Your task to perform on an android device: Go to internet settings Image 0: 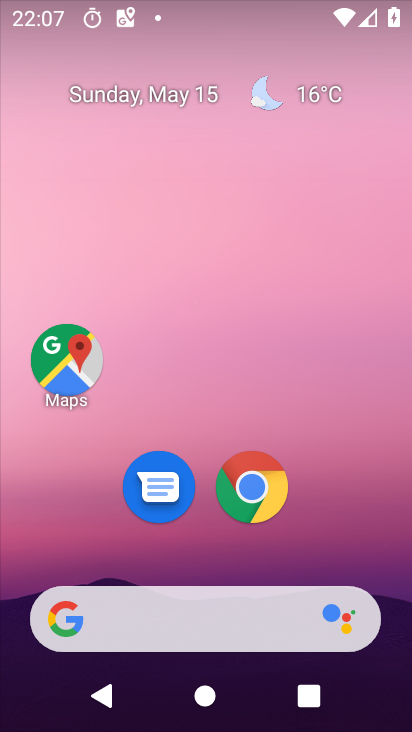
Step 0: click (373, 372)
Your task to perform on an android device: Go to internet settings Image 1: 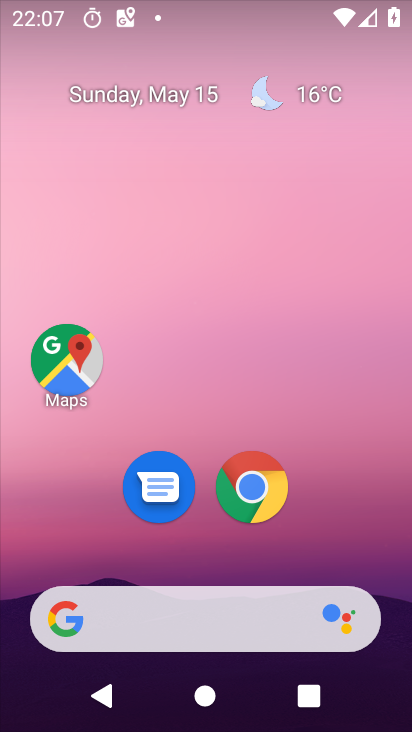
Step 1: drag from (400, 628) to (384, 229)
Your task to perform on an android device: Go to internet settings Image 2: 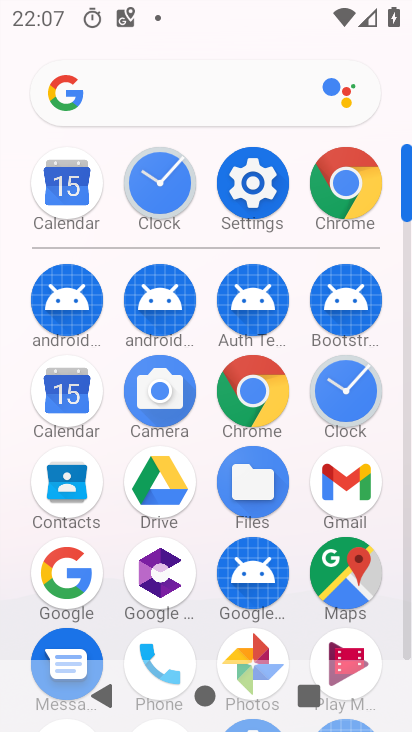
Step 2: click (263, 175)
Your task to perform on an android device: Go to internet settings Image 3: 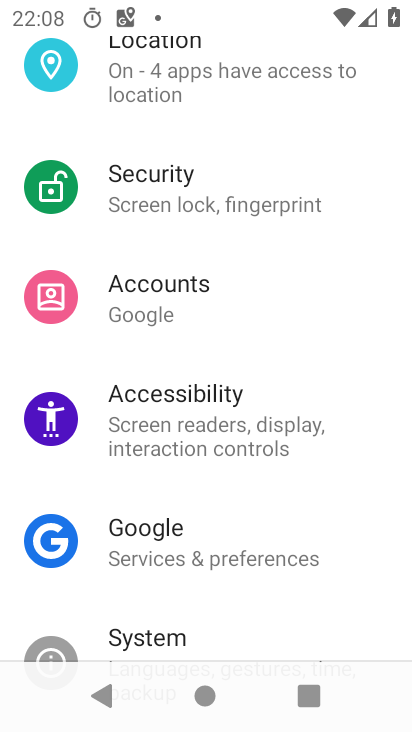
Step 3: drag from (378, 152) to (407, 482)
Your task to perform on an android device: Go to internet settings Image 4: 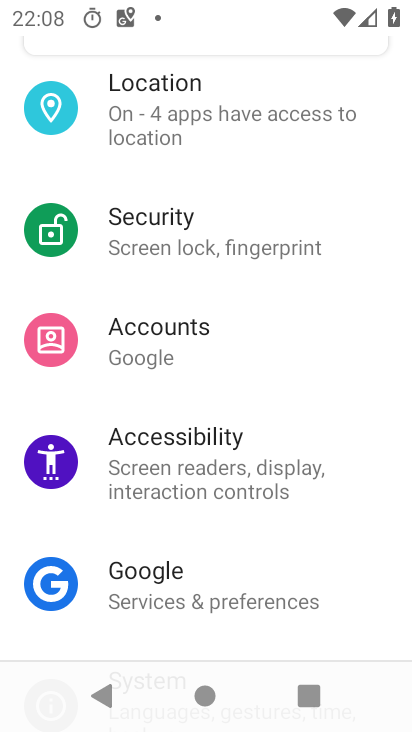
Step 4: drag from (383, 166) to (407, 427)
Your task to perform on an android device: Go to internet settings Image 5: 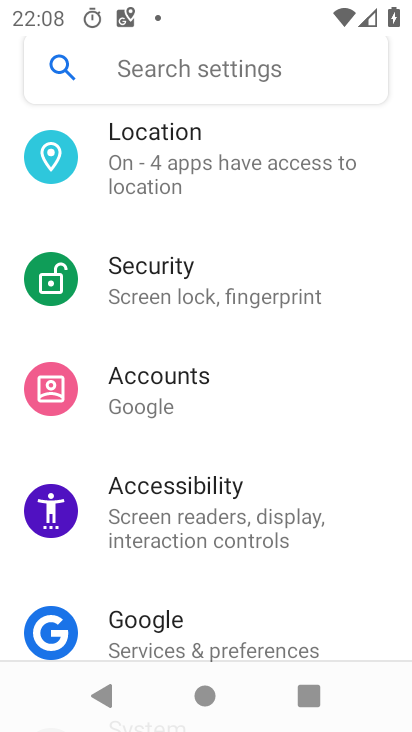
Step 5: drag from (376, 154) to (410, 250)
Your task to perform on an android device: Go to internet settings Image 6: 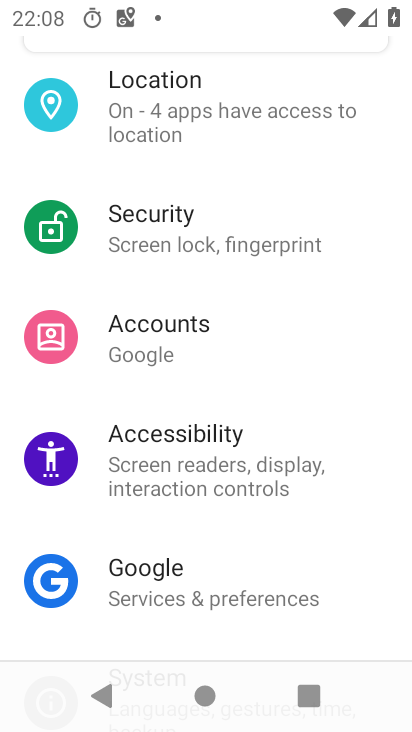
Step 6: drag from (386, 141) to (396, 481)
Your task to perform on an android device: Go to internet settings Image 7: 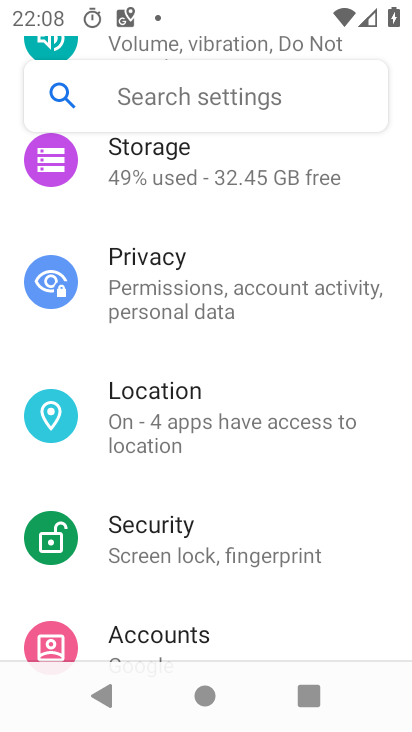
Step 7: drag from (382, 137) to (409, 423)
Your task to perform on an android device: Go to internet settings Image 8: 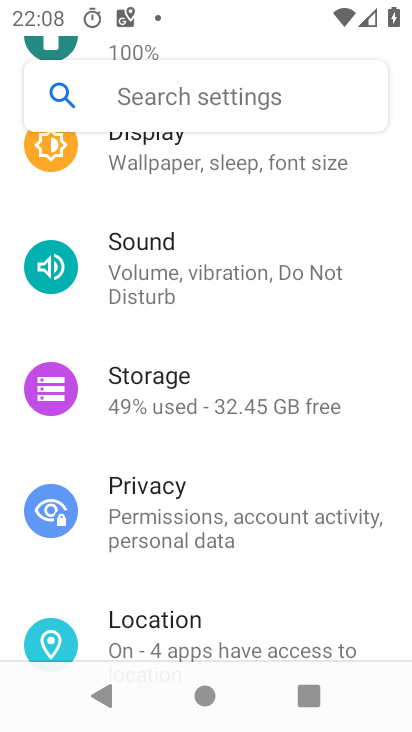
Step 8: drag from (379, 259) to (381, 518)
Your task to perform on an android device: Go to internet settings Image 9: 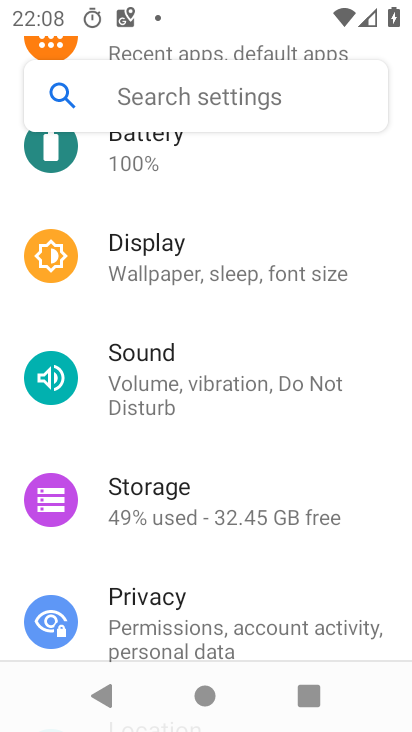
Step 9: drag from (384, 160) to (399, 558)
Your task to perform on an android device: Go to internet settings Image 10: 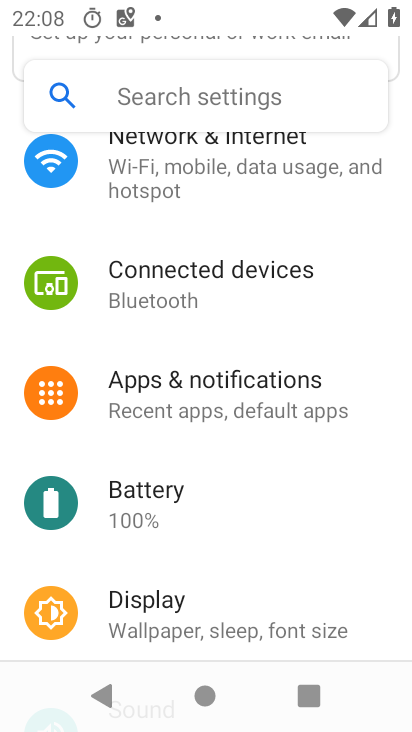
Step 10: drag from (386, 198) to (387, 460)
Your task to perform on an android device: Go to internet settings Image 11: 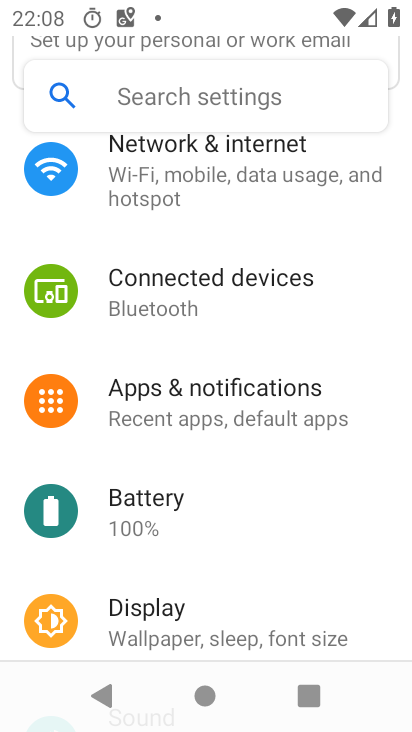
Step 11: click (203, 155)
Your task to perform on an android device: Go to internet settings Image 12: 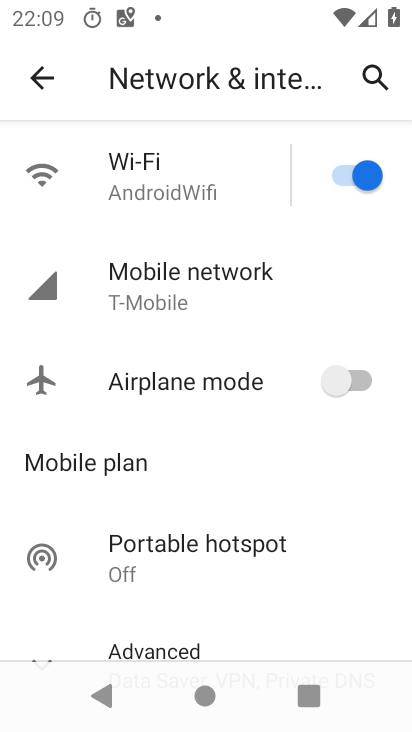
Step 12: click (178, 285)
Your task to perform on an android device: Go to internet settings Image 13: 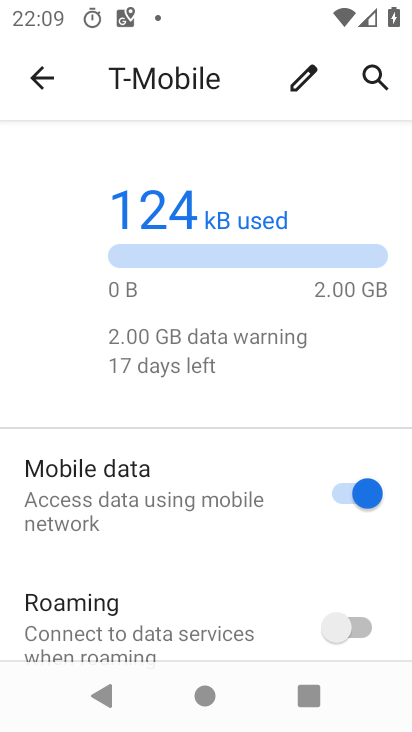
Step 13: drag from (203, 590) to (207, 330)
Your task to perform on an android device: Go to internet settings Image 14: 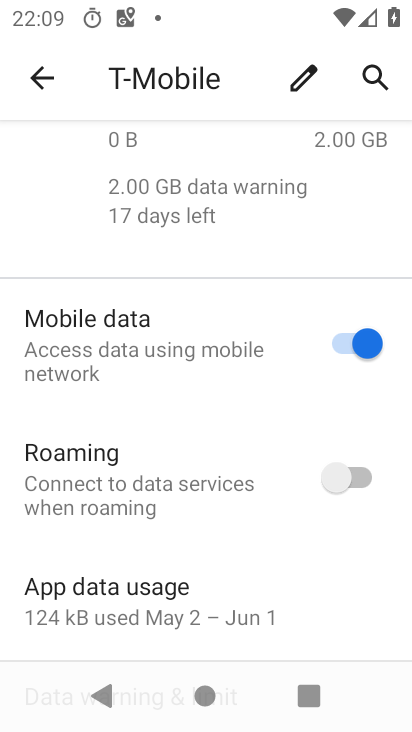
Step 14: drag from (190, 556) to (197, 373)
Your task to perform on an android device: Go to internet settings Image 15: 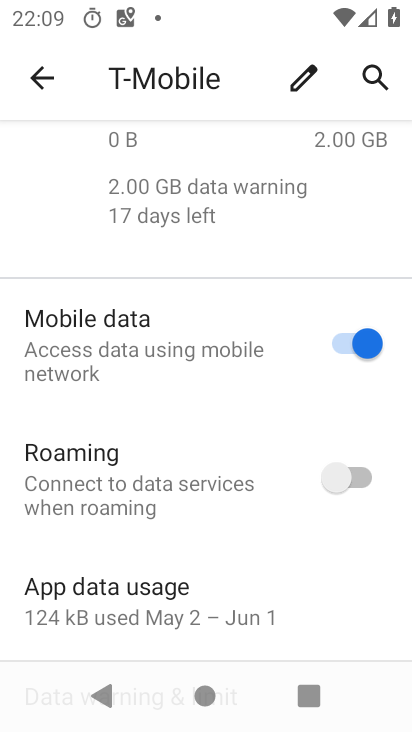
Step 15: click (37, 75)
Your task to perform on an android device: Go to internet settings Image 16: 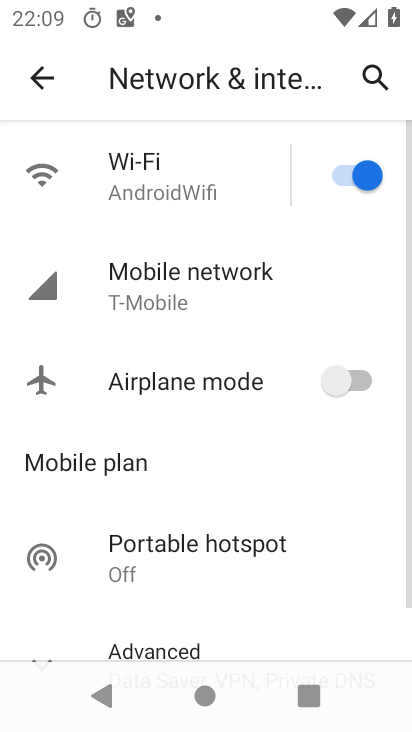
Step 16: click (144, 177)
Your task to perform on an android device: Go to internet settings Image 17: 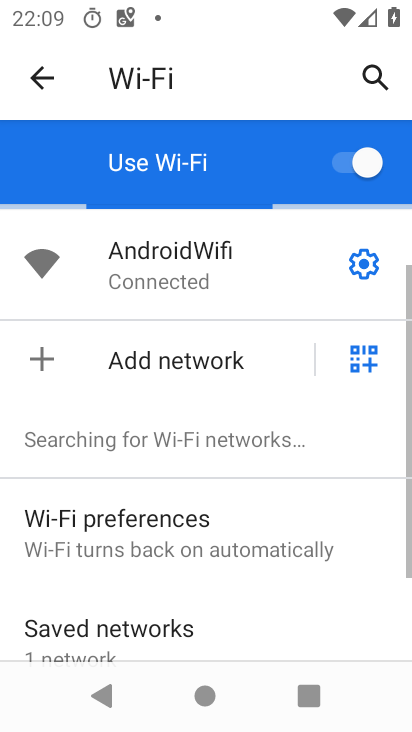
Step 17: drag from (217, 560) to (217, 299)
Your task to perform on an android device: Go to internet settings Image 18: 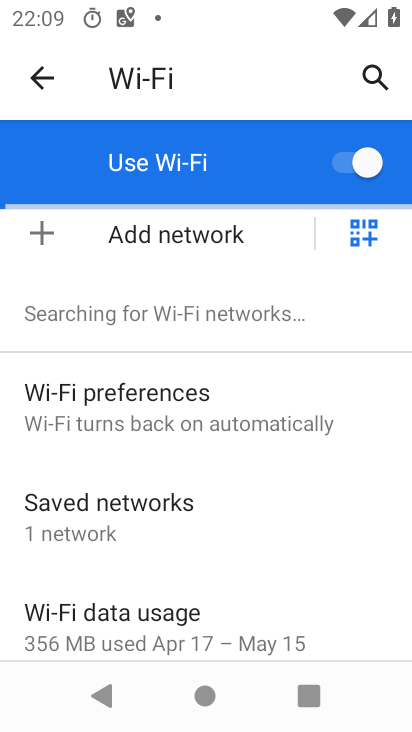
Step 18: drag from (192, 594) to (195, 427)
Your task to perform on an android device: Go to internet settings Image 19: 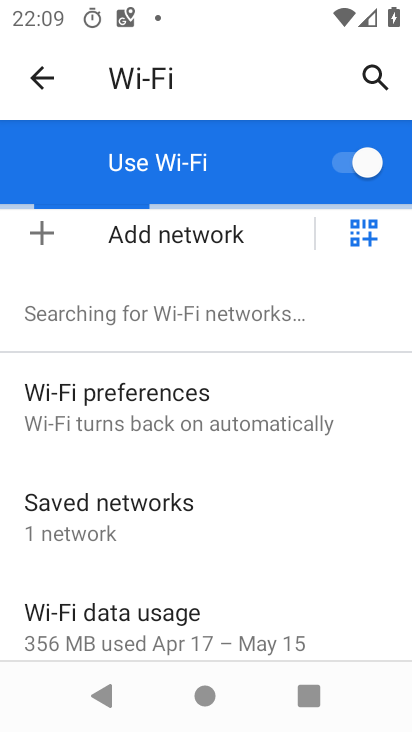
Step 19: click (39, 71)
Your task to perform on an android device: Go to internet settings Image 20: 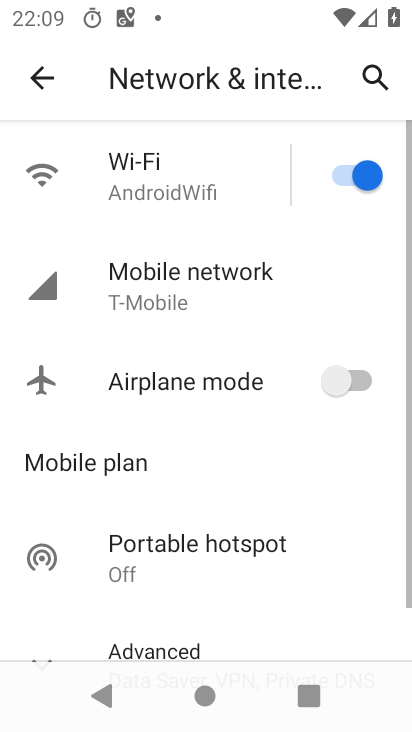
Step 20: click (219, 292)
Your task to perform on an android device: Go to internet settings Image 21: 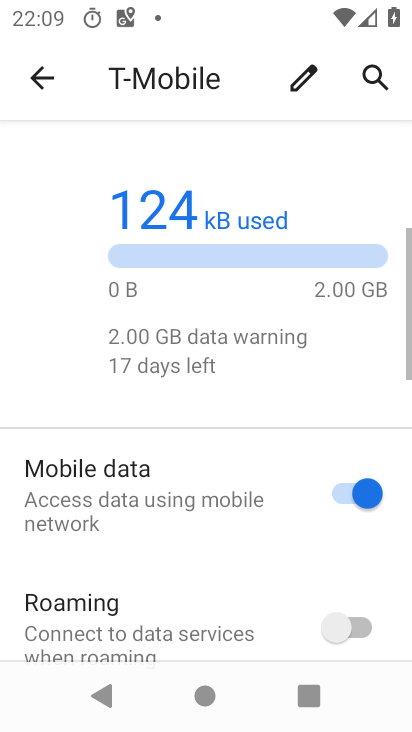
Step 21: drag from (233, 506) to (207, 326)
Your task to perform on an android device: Go to internet settings Image 22: 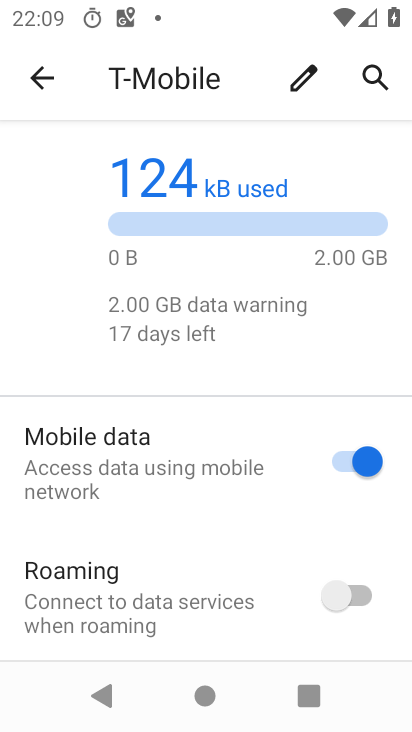
Step 22: click (52, 73)
Your task to perform on an android device: Go to internet settings Image 23: 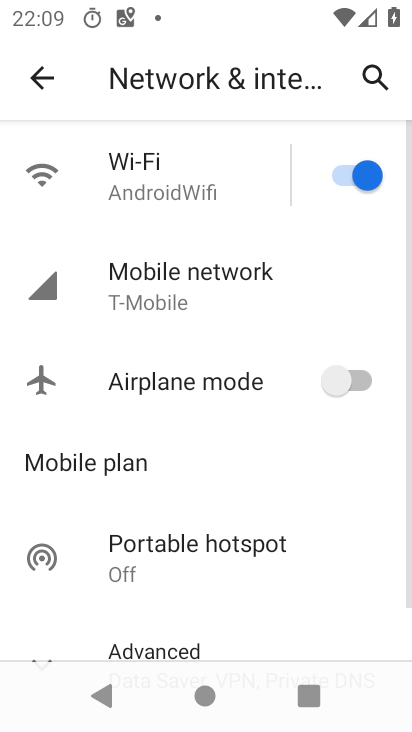
Step 23: drag from (219, 611) to (260, 381)
Your task to perform on an android device: Go to internet settings Image 24: 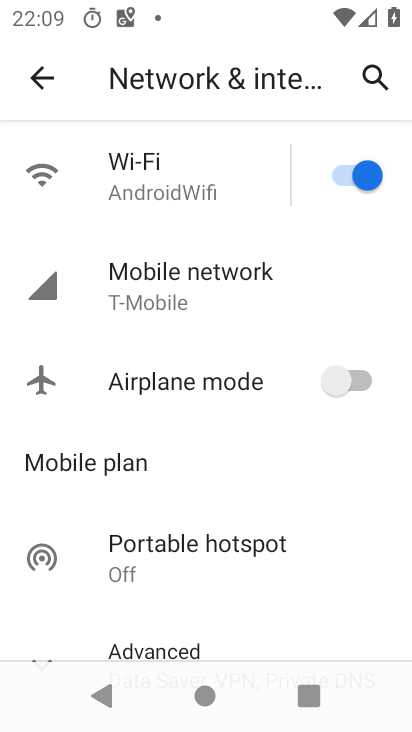
Step 24: drag from (280, 595) to (279, 352)
Your task to perform on an android device: Go to internet settings Image 25: 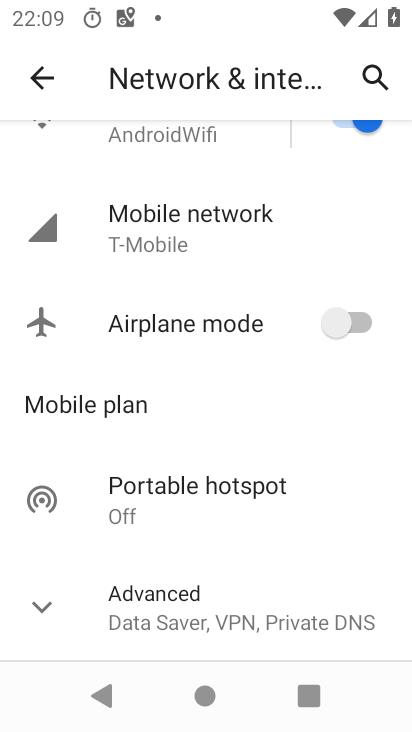
Step 25: click (49, 605)
Your task to perform on an android device: Go to internet settings Image 26: 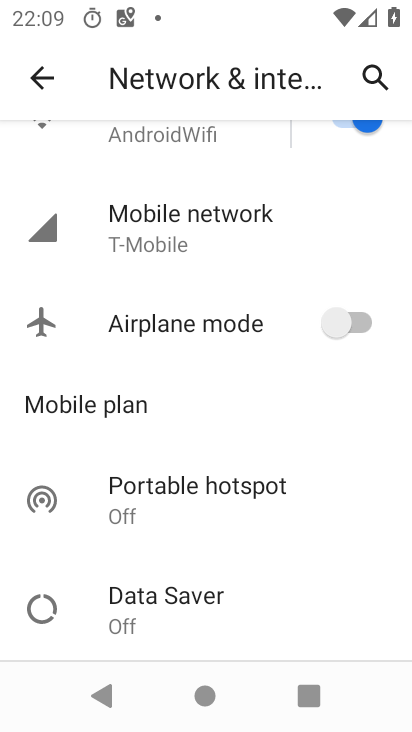
Step 26: task complete